Your task to perform on an android device: toggle show notifications on the lock screen Image 0: 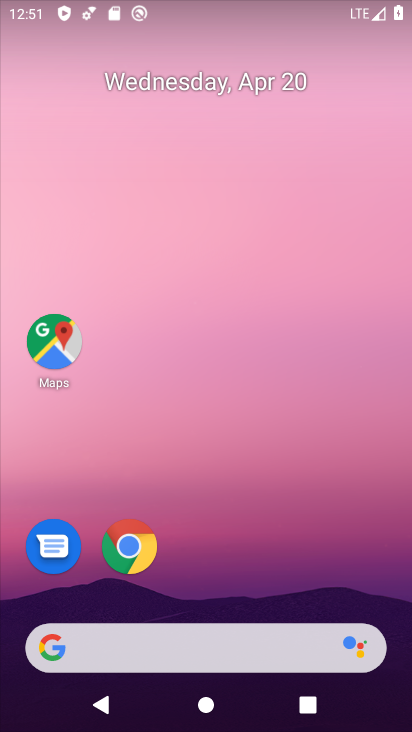
Step 0: drag from (211, 615) to (301, 284)
Your task to perform on an android device: toggle show notifications on the lock screen Image 1: 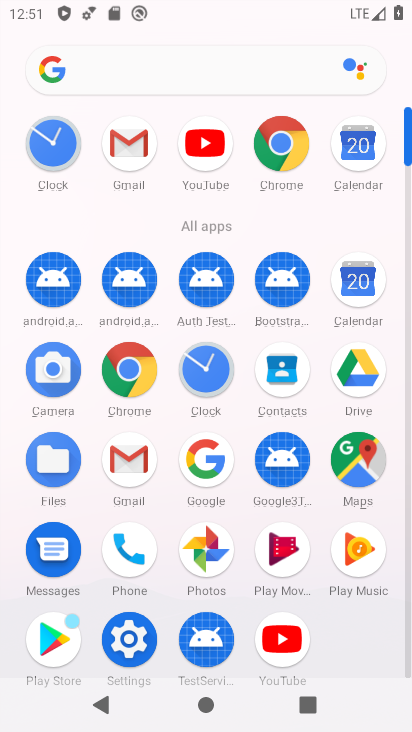
Step 1: click (128, 644)
Your task to perform on an android device: toggle show notifications on the lock screen Image 2: 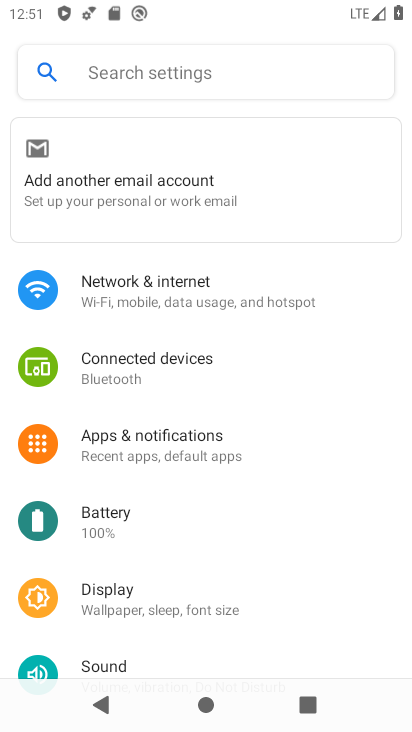
Step 2: click (245, 462)
Your task to perform on an android device: toggle show notifications on the lock screen Image 3: 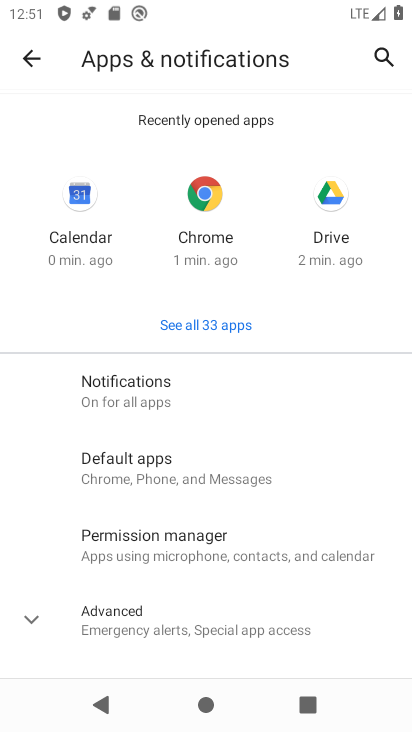
Step 3: click (217, 387)
Your task to perform on an android device: toggle show notifications on the lock screen Image 4: 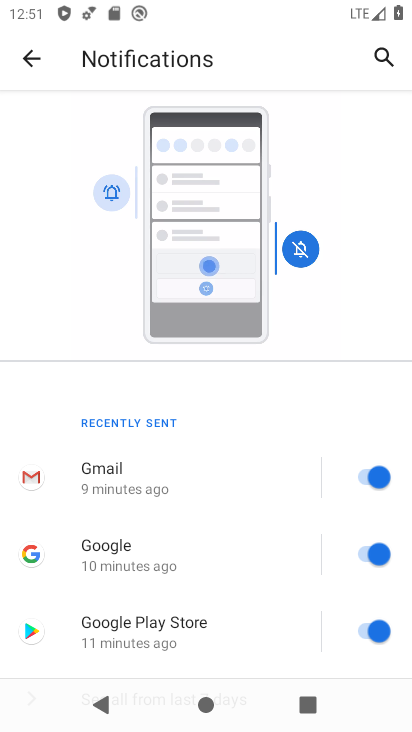
Step 4: drag from (236, 511) to (386, 119)
Your task to perform on an android device: toggle show notifications on the lock screen Image 5: 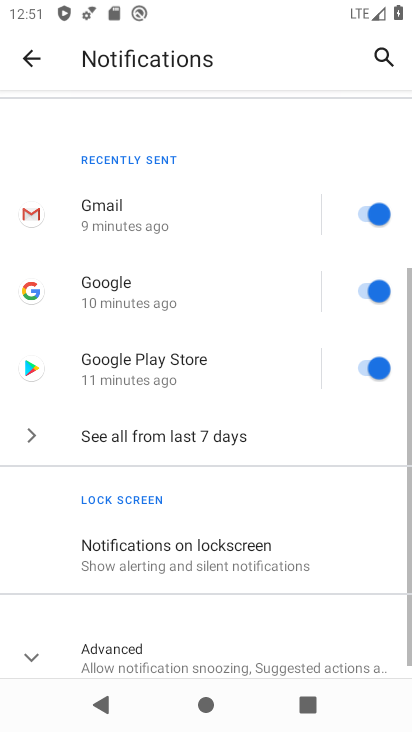
Step 5: drag from (208, 545) to (249, 462)
Your task to perform on an android device: toggle show notifications on the lock screen Image 6: 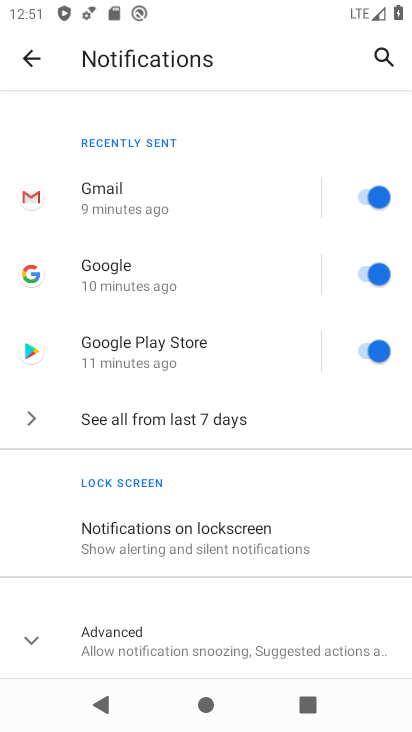
Step 6: click (221, 555)
Your task to perform on an android device: toggle show notifications on the lock screen Image 7: 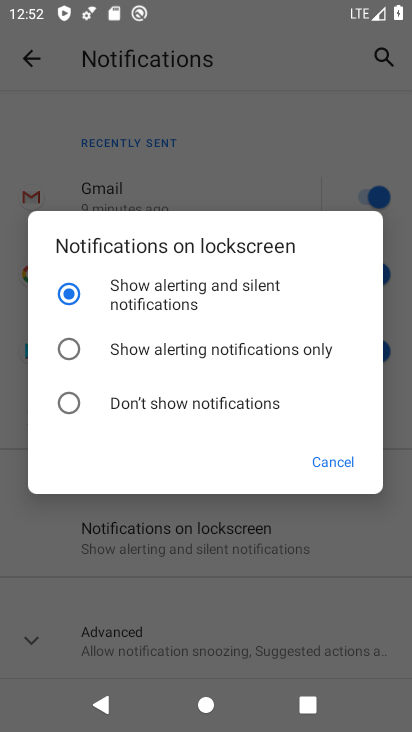
Step 7: click (62, 405)
Your task to perform on an android device: toggle show notifications on the lock screen Image 8: 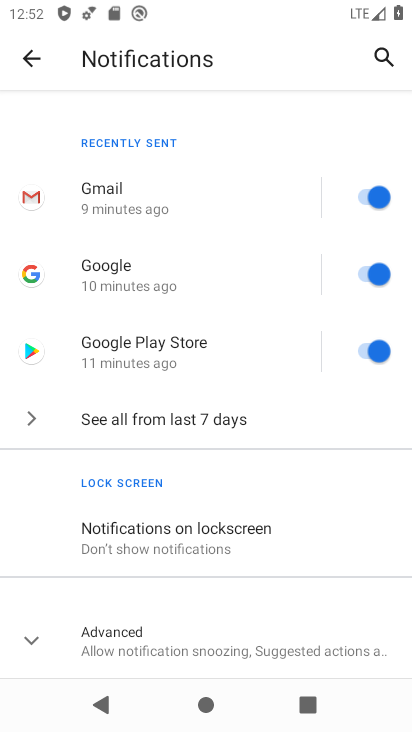
Step 8: task complete